Your task to perform on an android device: read, delete, or share a saved page in the chrome app Image 0: 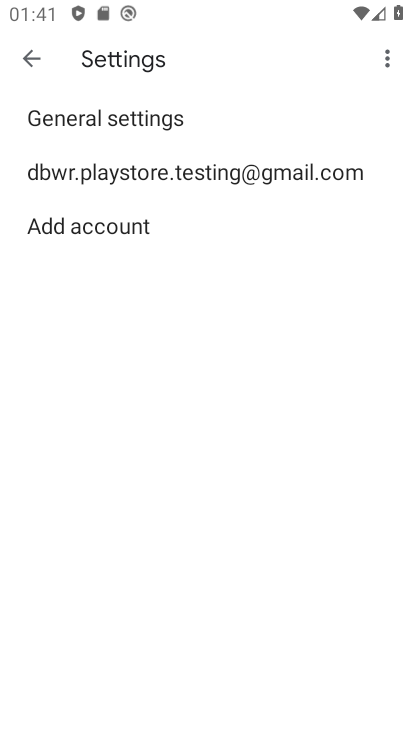
Step 0: drag from (222, 559) to (235, 41)
Your task to perform on an android device: read, delete, or share a saved page in the chrome app Image 1: 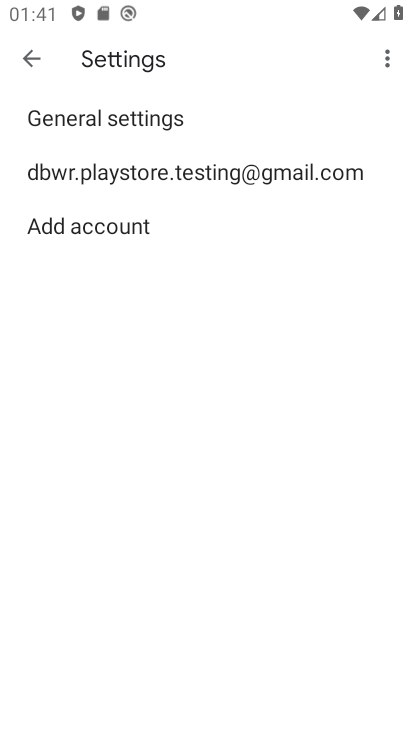
Step 1: press home button
Your task to perform on an android device: read, delete, or share a saved page in the chrome app Image 2: 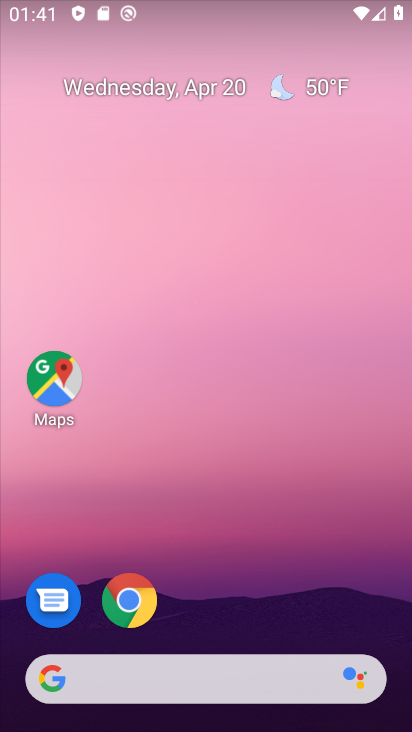
Step 2: click (150, 599)
Your task to perform on an android device: read, delete, or share a saved page in the chrome app Image 3: 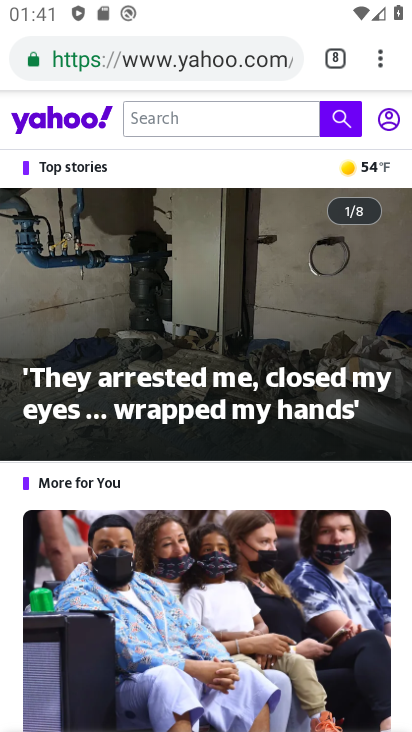
Step 3: task complete